Your task to perform on an android device: Go to Wikipedia Image 0: 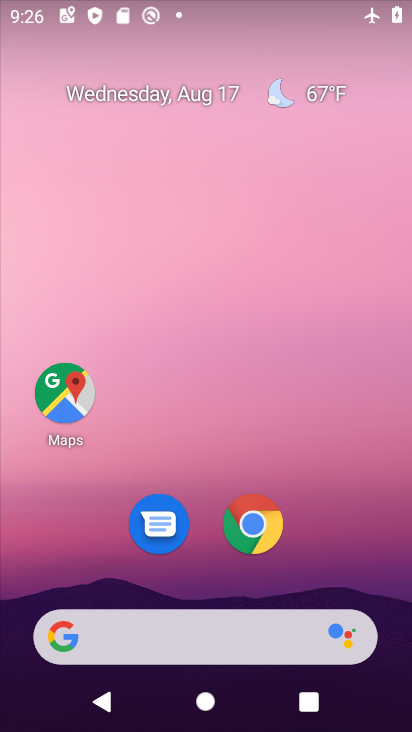
Step 0: click (258, 520)
Your task to perform on an android device: Go to Wikipedia Image 1: 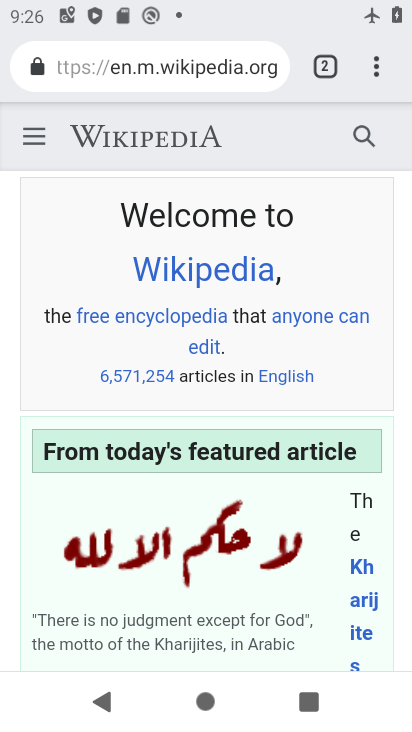
Step 1: task complete